Your task to perform on an android device: Find coffee shops on Maps Image 0: 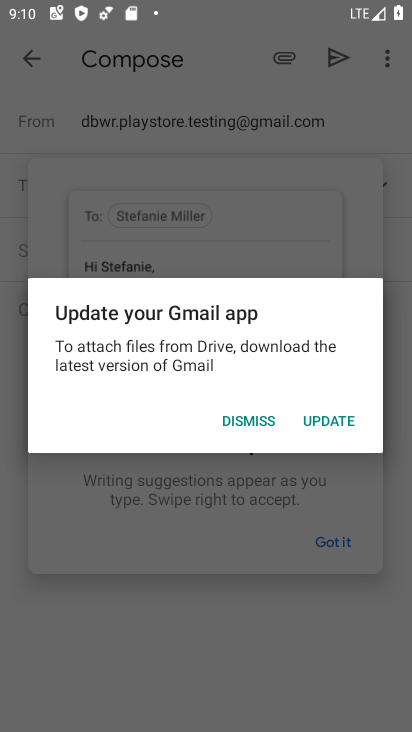
Step 0: click (250, 619)
Your task to perform on an android device: Find coffee shops on Maps Image 1: 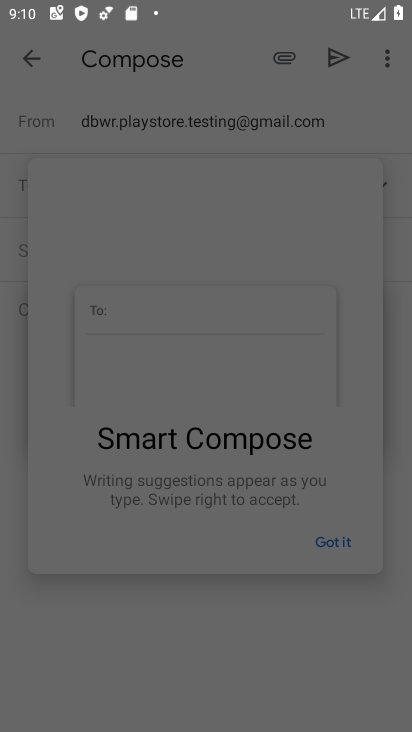
Step 1: press home button
Your task to perform on an android device: Find coffee shops on Maps Image 2: 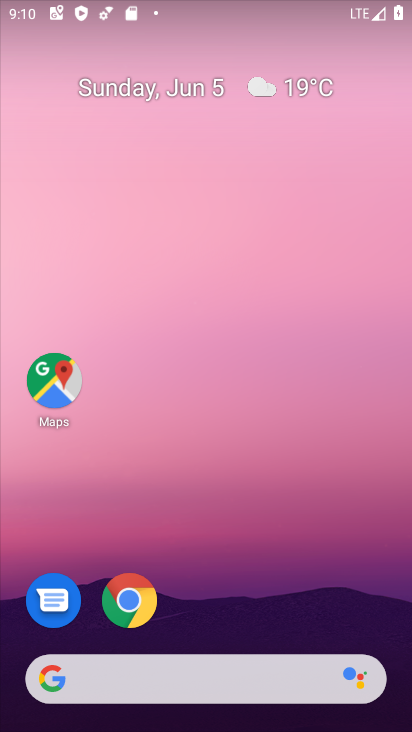
Step 2: drag from (253, 620) to (233, 229)
Your task to perform on an android device: Find coffee shops on Maps Image 3: 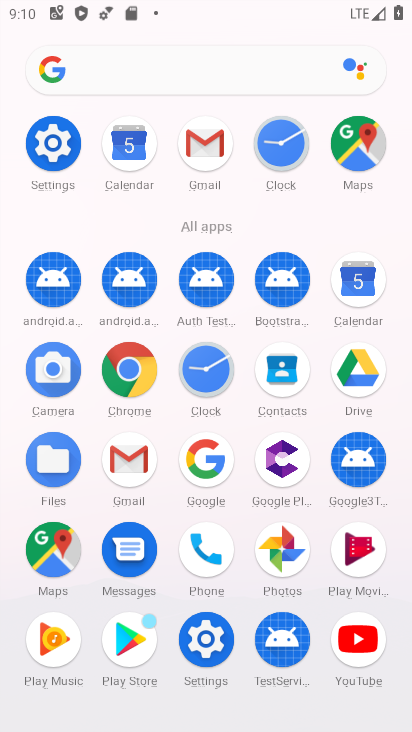
Step 3: click (361, 141)
Your task to perform on an android device: Find coffee shops on Maps Image 4: 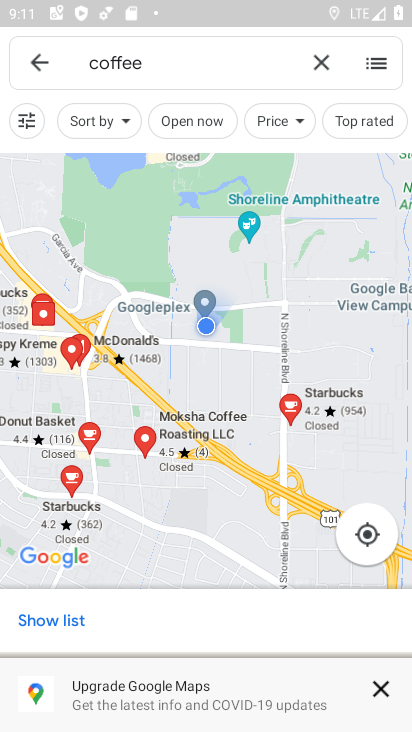
Step 4: task complete